Your task to perform on an android device: turn on sleep mode Image 0: 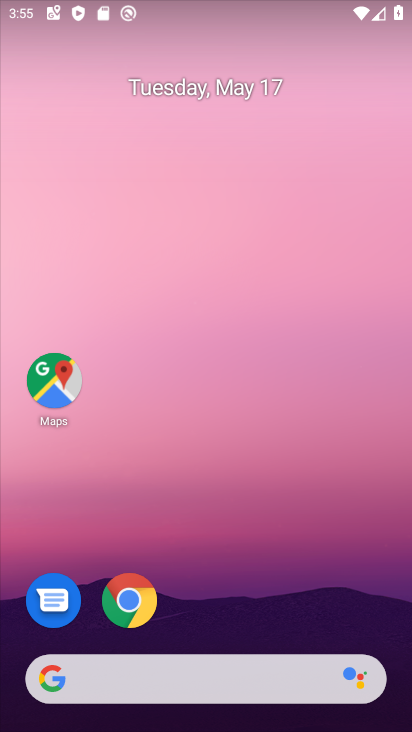
Step 0: drag from (241, 631) to (294, 58)
Your task to perform on an android device: turn on sleep mode Image 1: 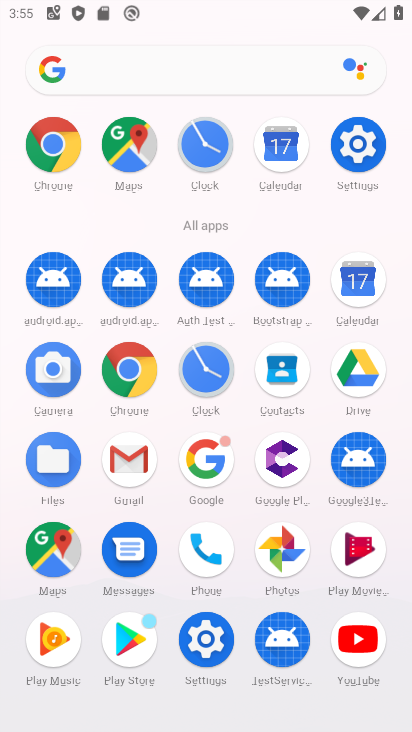
Step 1: click (353, 160)
Your task to perform on an android device: turn on sleep mode Image 2: 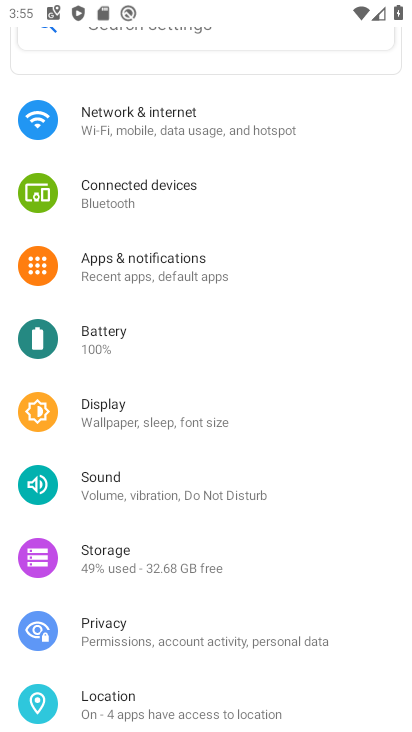
Step 2: drag from (213, 134) to (226, 500)
Your task to perform on an android device: turn on sleep mode Image 3: 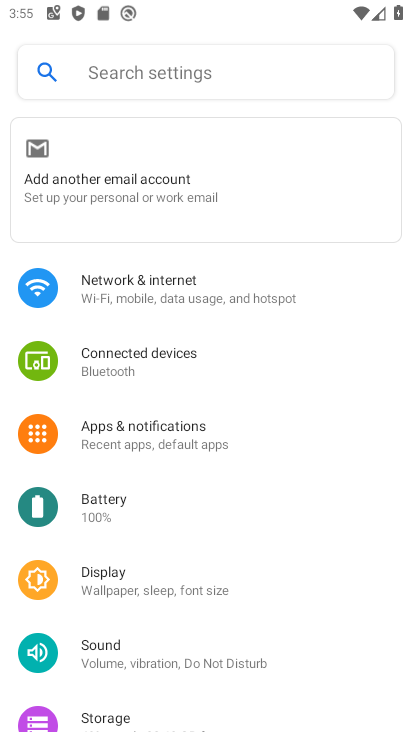
Step 3: click (204, 74)
Your task to perform on an android device: turn on sleep mode Image 4: 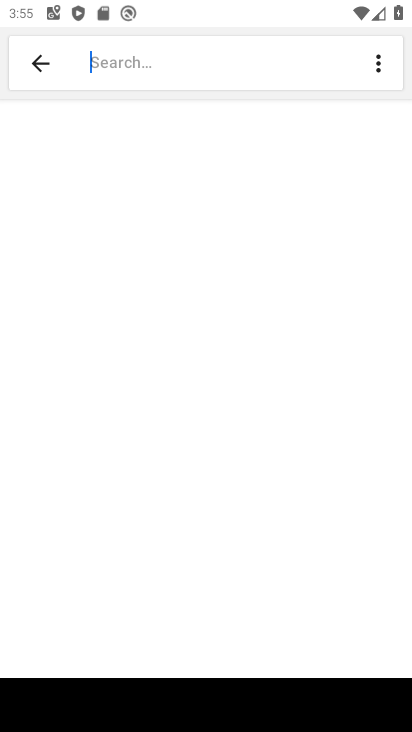
Step 4: type "sleep mode"
Your task to perform on an android device: turn on sleep mode Image 5: 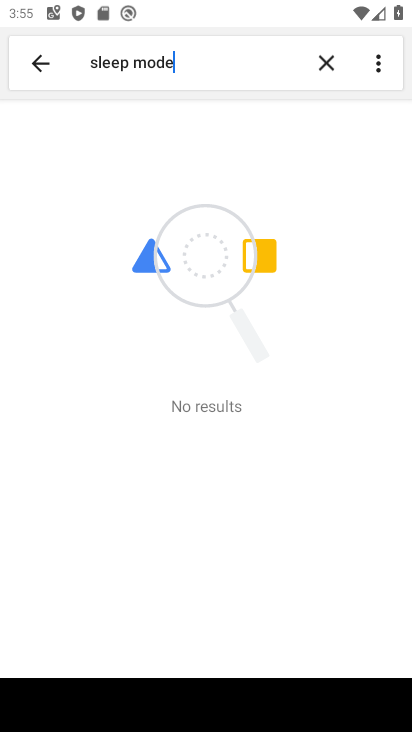
Step 5: task complete